Your task to perform on an android device: What is the recent news? Image 0: 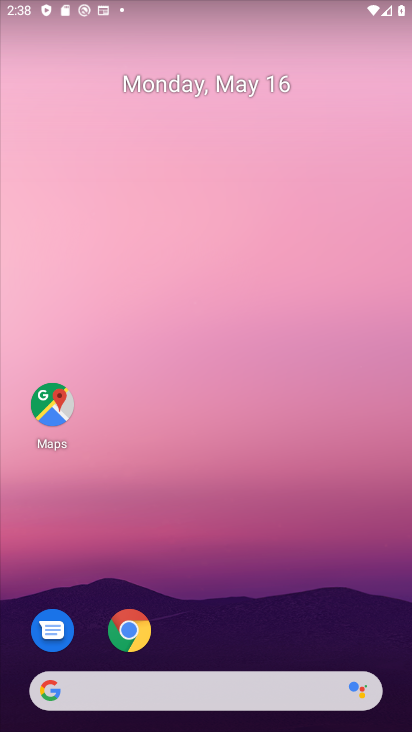
Step 0: drag from (26, 227) to (406, 248)
Your task to perform on an android device: What is the recent news? Image 1: 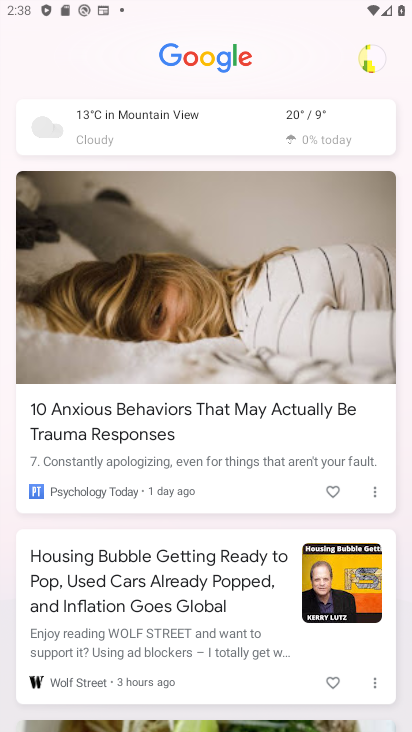
Step 1: task complete